Your task to perform on an android device: Toggle the flashlight Image 0: 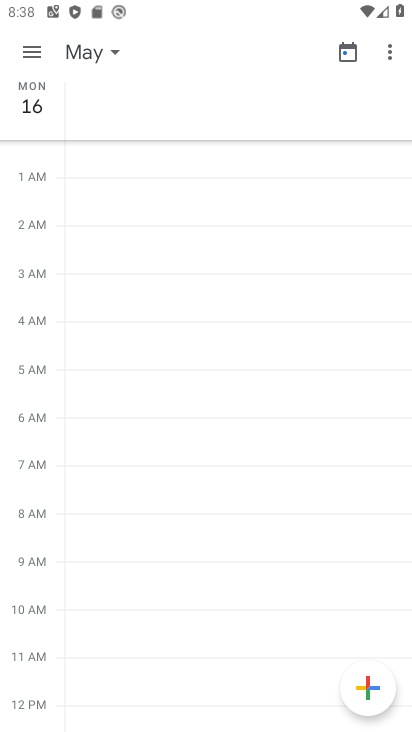
Step 0: press home button
Your task to perform on an android device: Toggle the flashlight Image 1: 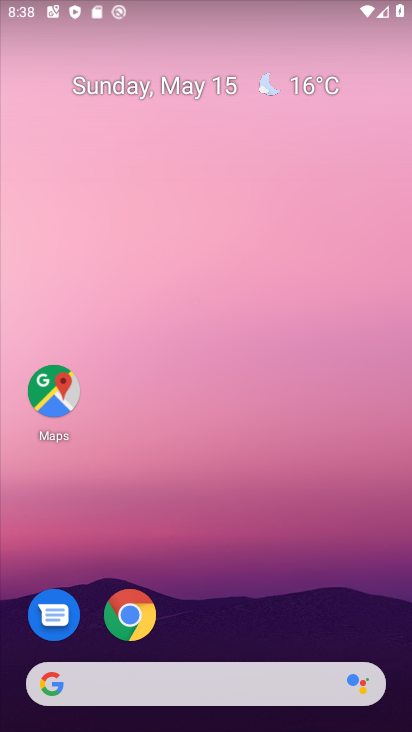
Step 1: drag from (356, 6) to (274, 537)
Your task to perform on an android device: Toggle the flashlight Image 2: 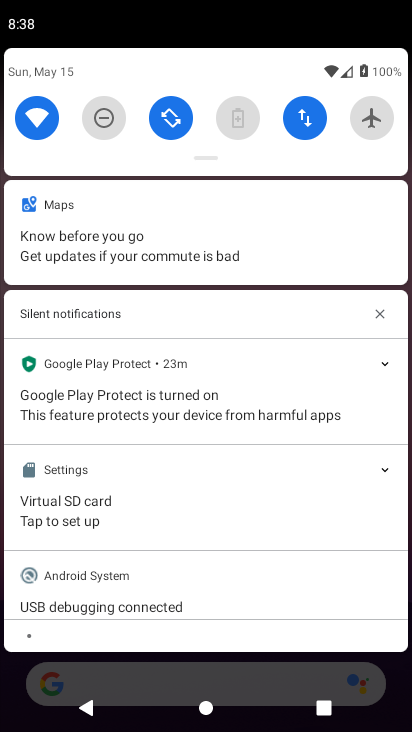
Step 2: drag from (255, 149) to (130, 657)
Your task to perform on an android device: Toggle the flashlight Image 3: 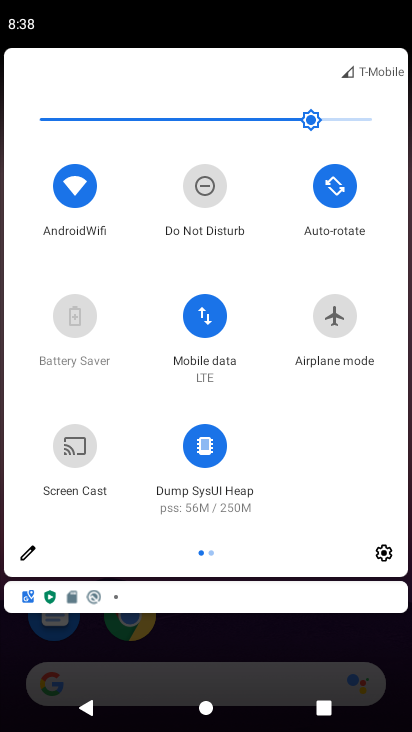
Step 3: click (337, 447)
Your task to perform on an android device: Toggle the flashlight Image 4: 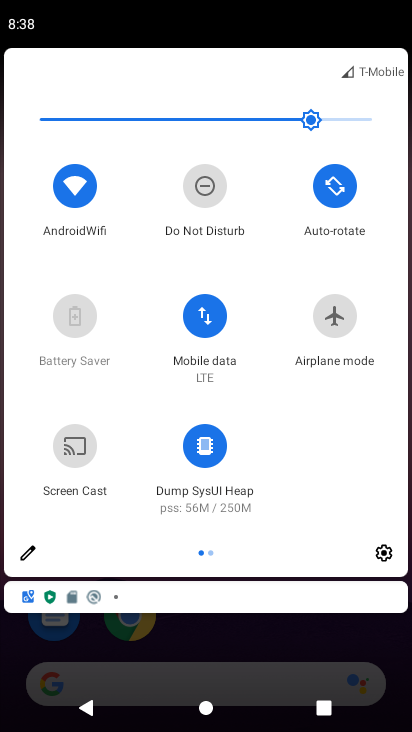
Step 4: drag from (370, 432) to (1, 375)
Your task to perform on an android device: Toggle the flashlight Image 5: 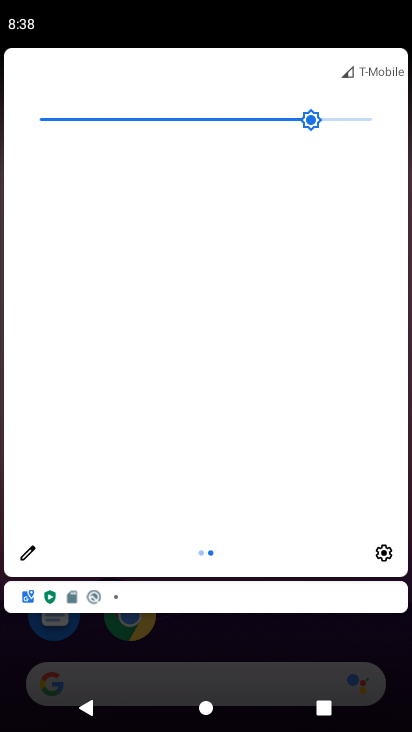
Step 5: click (29, 551)
Your task to perform on an android device: Toggle the flashlight Image 6: 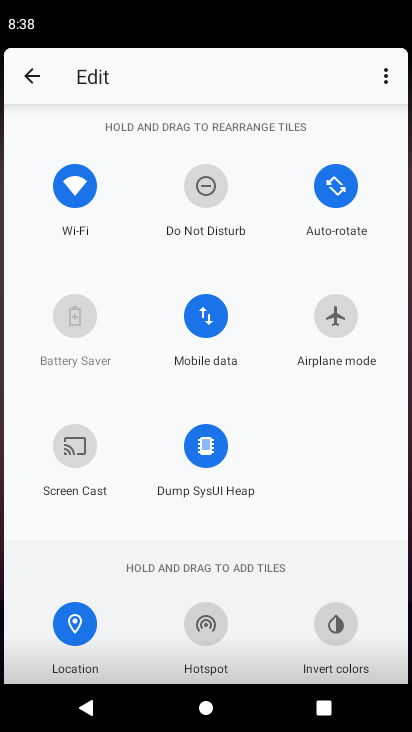
Step 6: task complete